Your task to perform on an android device: set default search engine in the chrome app Image 0: 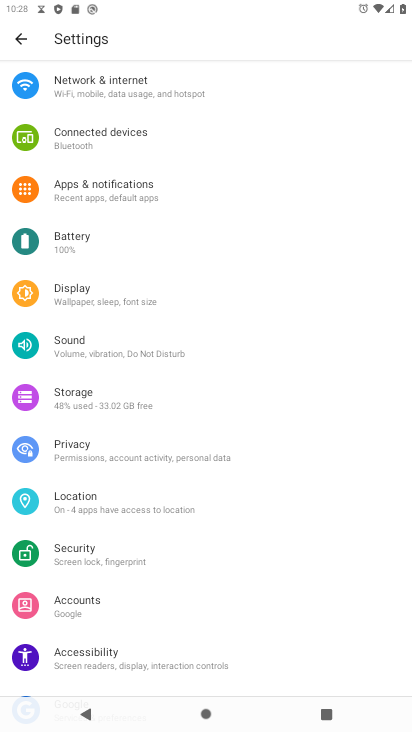
Step 0: press home button
Your task to perform on an android device: set default search engine in the chrome app Image 1: 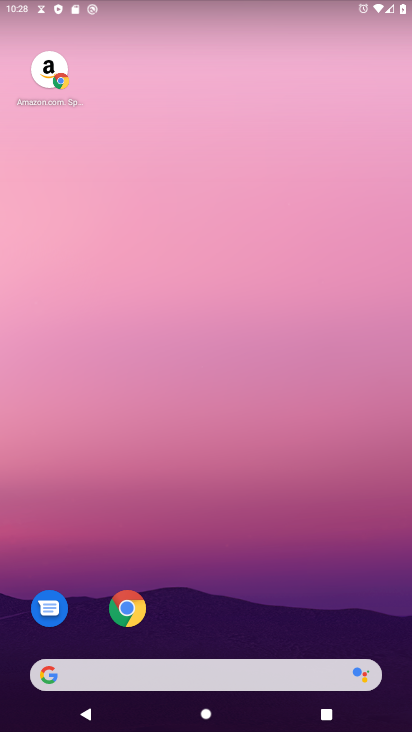
Step 1: click (127, 608)
Your task to perform on an android device: set default search engine in the chrome app Image 2: 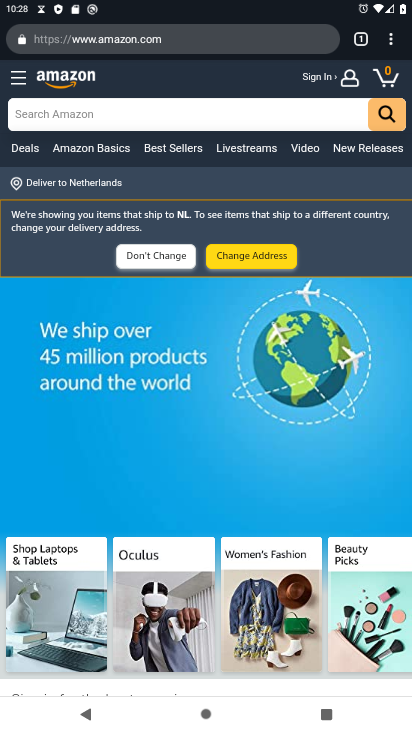
Step 2: click (395, 40)
Your task to perform on an android device: set default search engine in the chrome app Image 3: 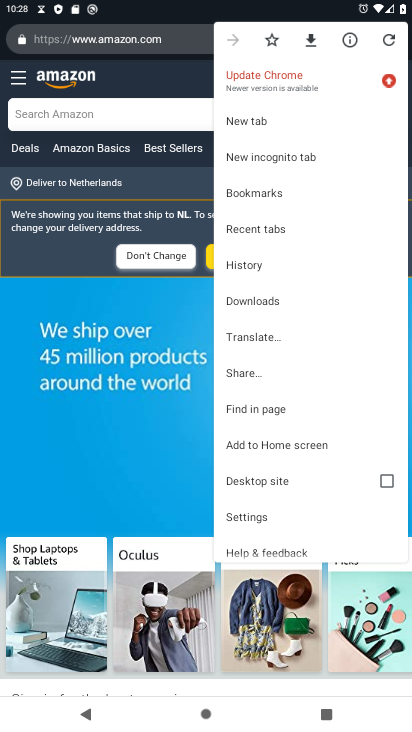
Step 3: click (250, 517)
Your task to perform on an android device: set default search engine in the chrome app Image 4: 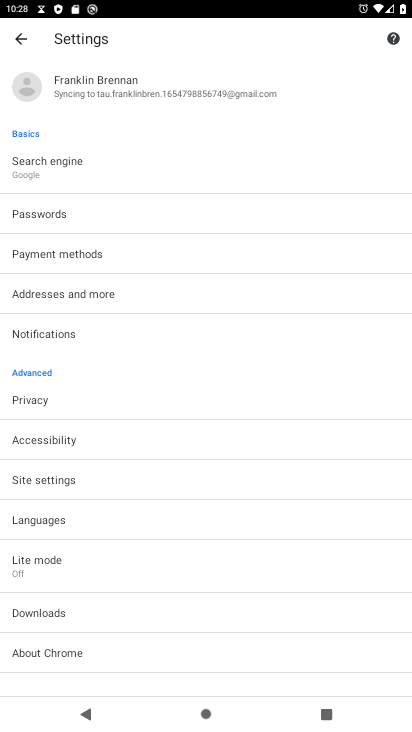
Step 4: click (73, 166)
Your task to perform on an android device: set default search engine in the chrome app Image 5: 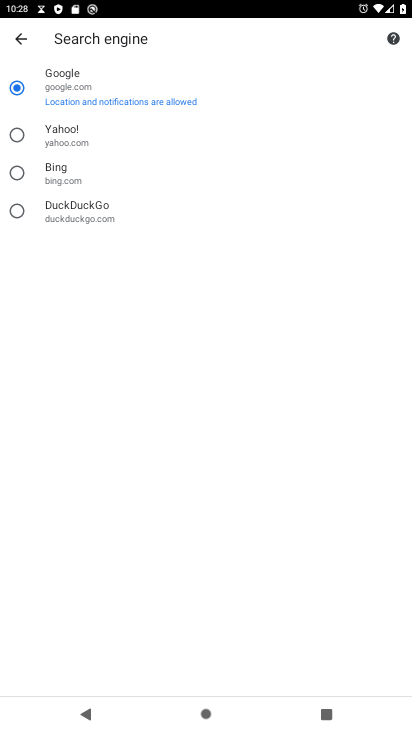
Step 5: click (17, 88)
Your task to perform on an android device: set default search engine in the chrome app Image 6: 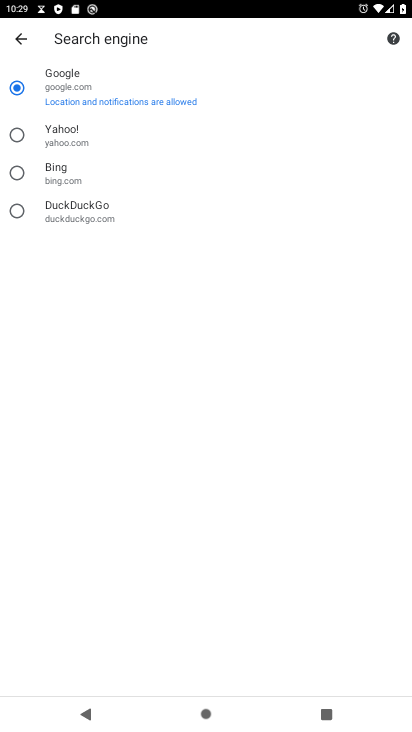
Step 6: task complete